Your task to perform on an android device: Open settings Image 0: 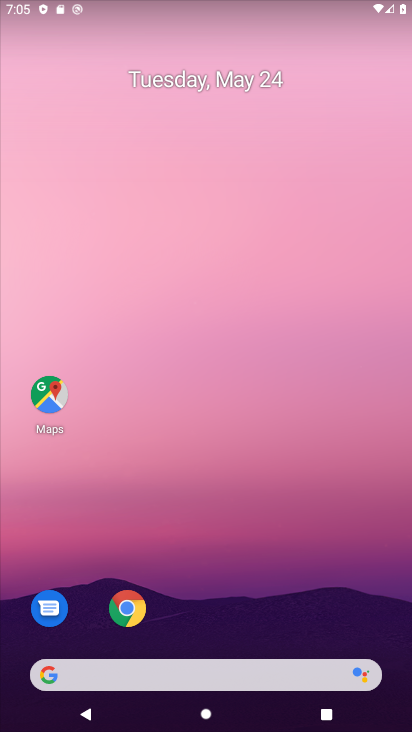
Step 0: drag from (274, 597) to (220, 202)
Your task to perform on an android device: Open settings Image 1: 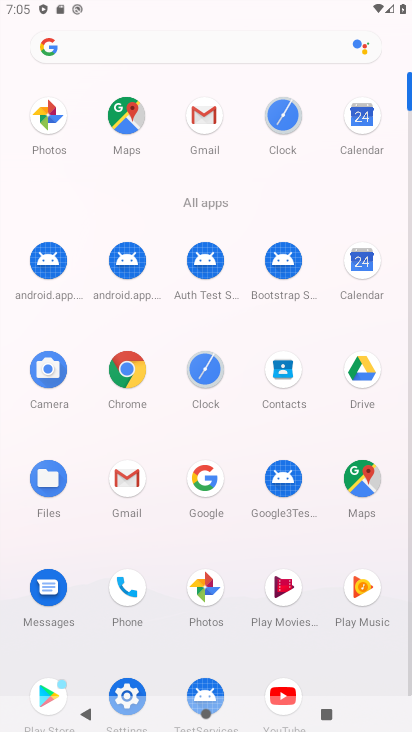
Step 1: drag from (163, 608) to (179, 458)
Your task to perform on an android device: Open settings Image 2: 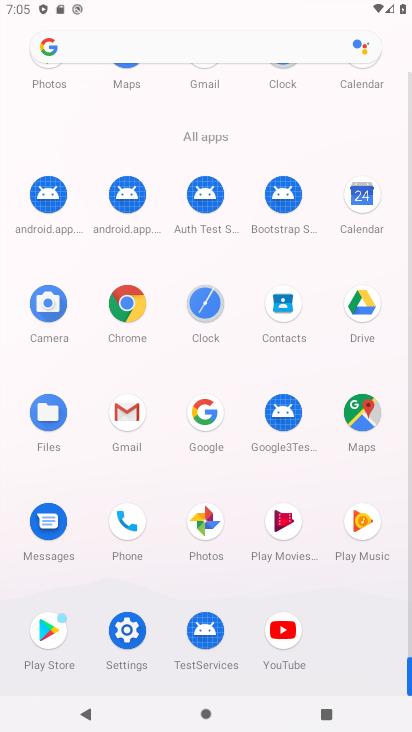
Step 2: click (126, 628)
Your task to perform on an android device: Open settings Image 3: 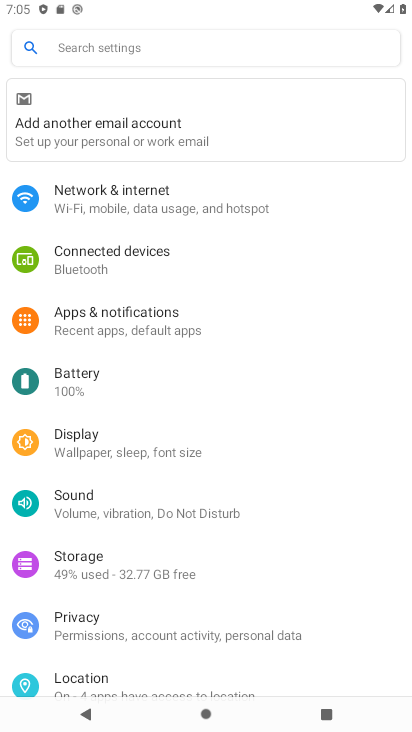
Step 3: task complete